Your task to perform on an android device: Open settings Image 0: 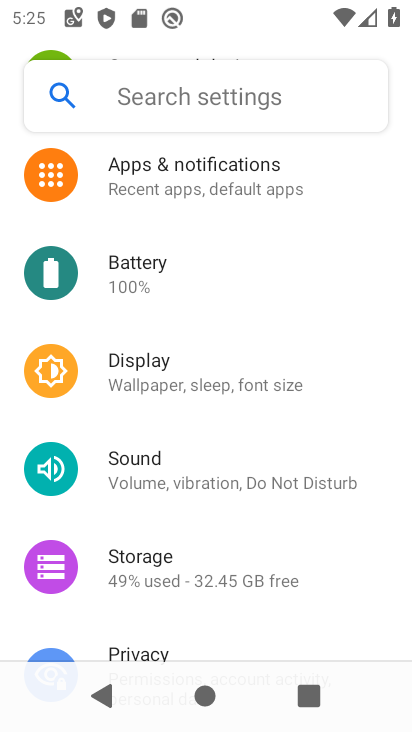
Step 0: drag from (221, 529) to (235, 218)
Your task to perform on an android device: Open settings Image 1: 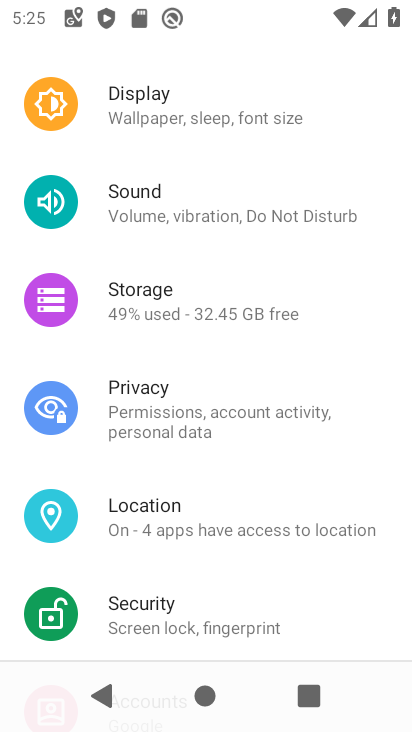
Step 1: task complete